Your task to perform on an android device: turn on bluetooth scan Image 0: 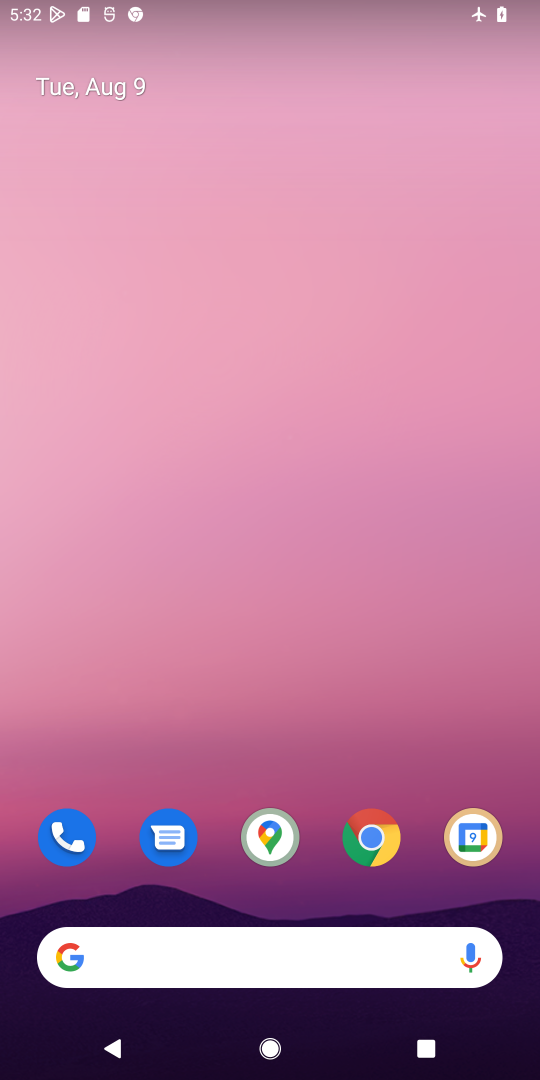
Step 0: drag from (249, 820) to (249, 199)
Your task to perform on an android device: turn on bluetooth scan Image 1: 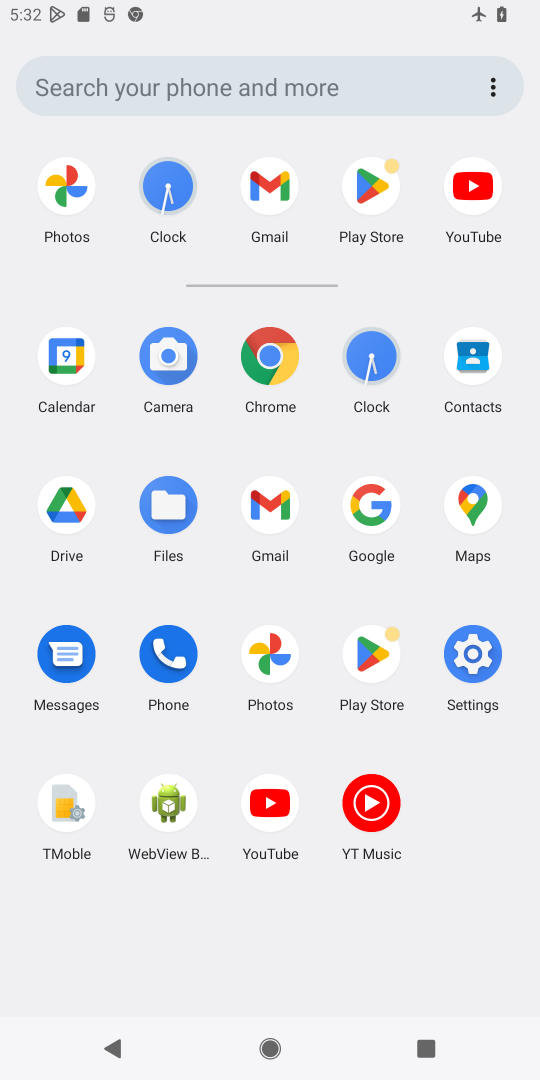
Step 1: click (466, 652)
Your task to perform on an android device: turn on bluetooth scan Image 2: 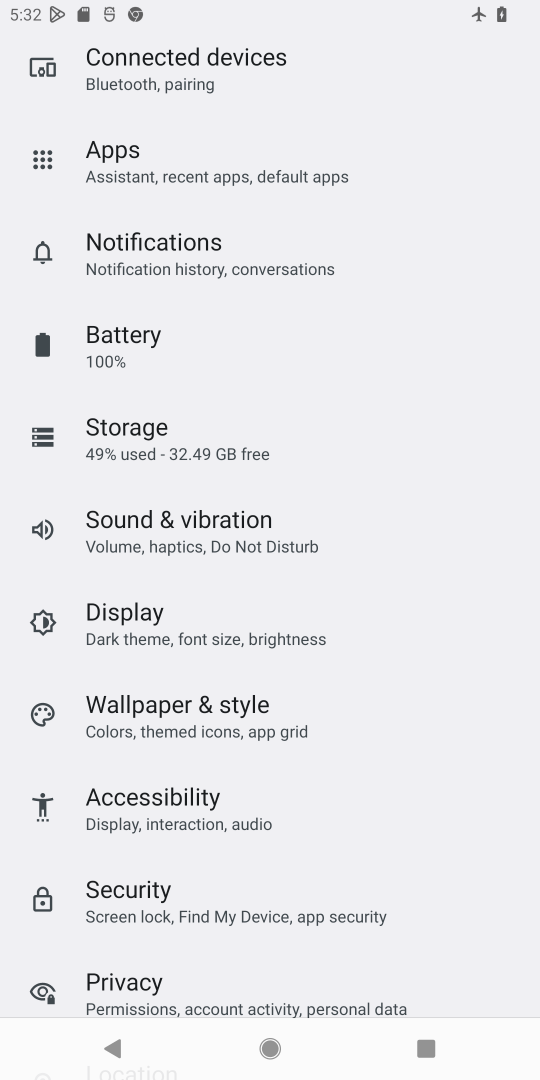
Step 2: drag from (154, 113) to (123, 1075)
Your task to perform on an android device: turn on bluetooth scan Image 3: 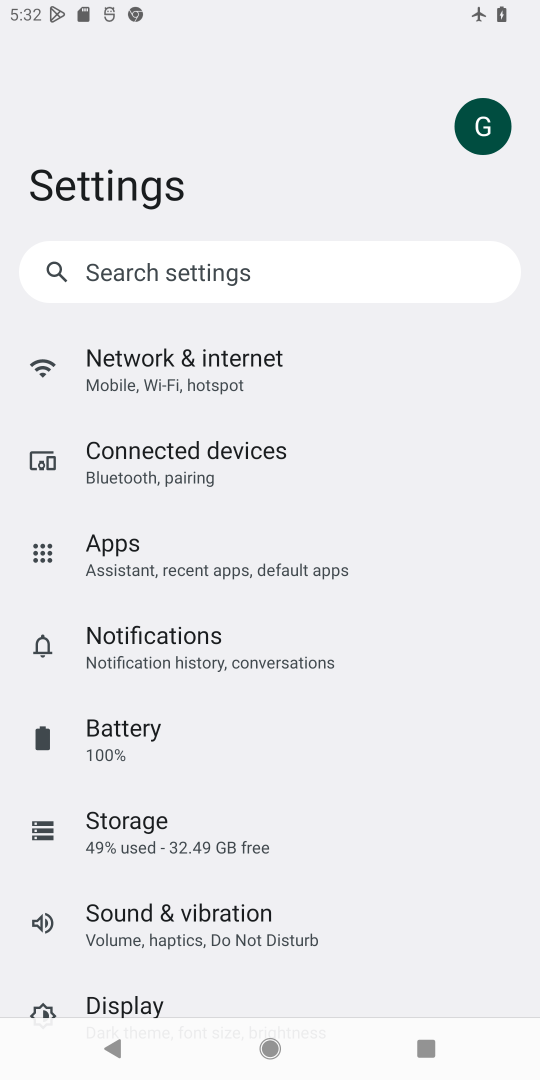
Step 3: click (270, 248)
Your task to perform on an android device: turn on bluetooth scan Image 4: 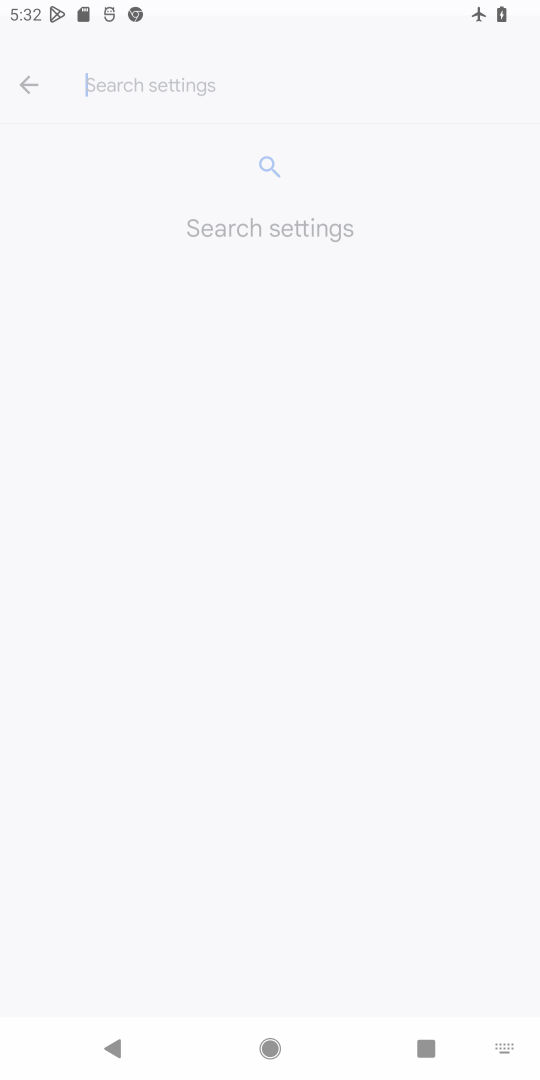
Step 4: type "bluetooth scan "
Your task to perform on an android device: turn on bluetooth scan Image 5: 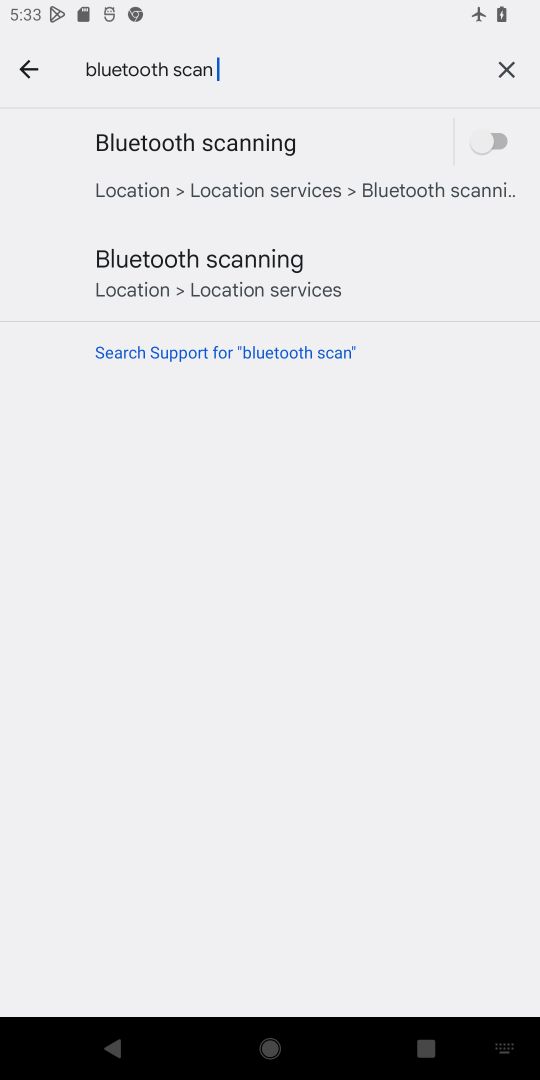
Step 5: click (501, 144)
Your task to perform on an android device: turn on bluetooth scan Image 6: 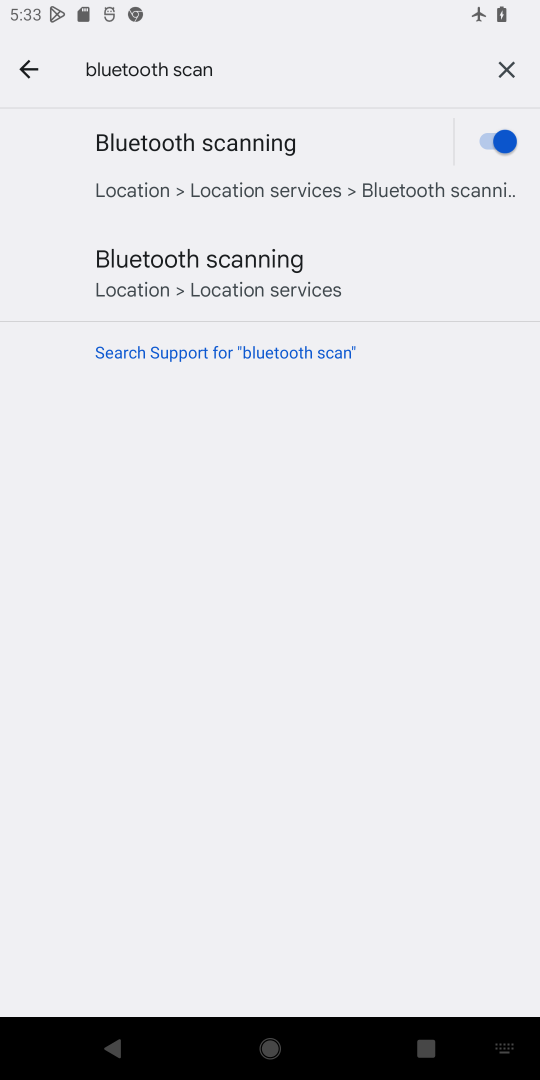
Step 6: task complete